Your task to perform on an android device: Search for logitech g903 on target.com, select the first entry, add it to the cart, then select checkout. Image 0: 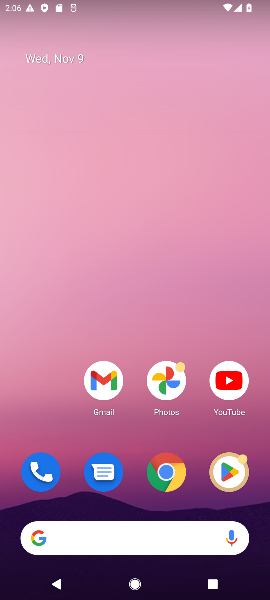
Step 0: click (129, 285)
Your task to perform on an android device: Search for logitech g903 on target.com, select the first entry, add it to the cart, then select checkout. Image 1: 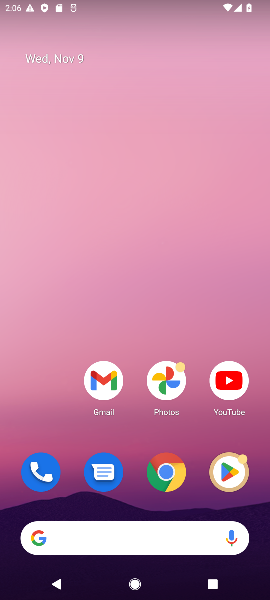
Step 1: click (110, 533)
Your task to perform on an android device: Search for logitech g903 on target.com, select the first entry, add it to the cart, then select checkout. Image 2: 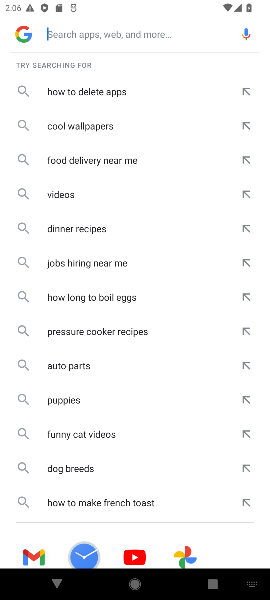
Step 2: type "target.com"
Your task to perform on an android device: Search for logitech g903 on target.com, select the first entry, add it to the cart, then select checkout. Image 3: 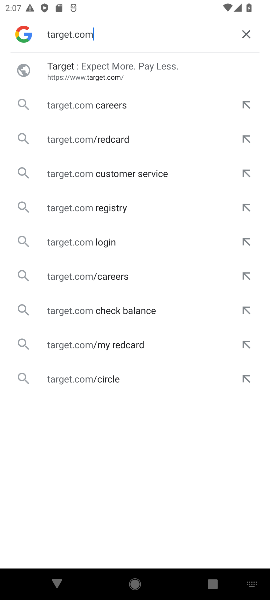
Step 3: click (55, 63)
Your task to perform on an android device: Search for logitech g903 on target.com, select the first entry, add it to the cart, then select checkout. Image 4: 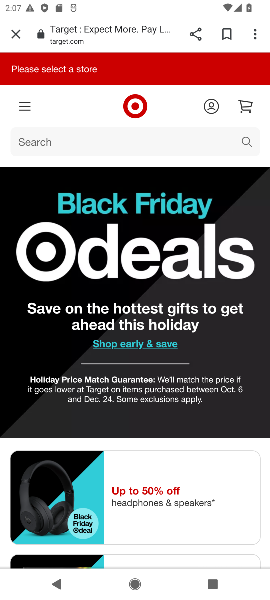
Step 4: drag from (173, 421) to (164, 237)
Your task to perform on an android device: Search for logitech g903 on target.com, select the first entry, add it to the cart, then select checkout. Image 5: 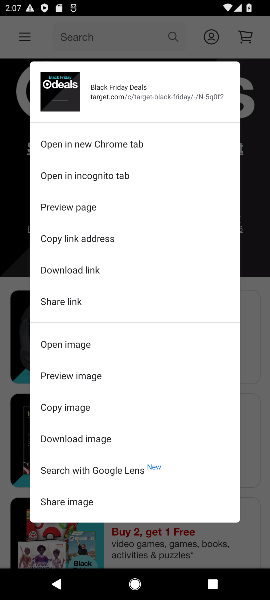
Step 5: click (255, 350)
Your task to perform on an android device: Search for logitech g903 on target.com, select the first entry, add it to the cart, then select checkout. Image 6: 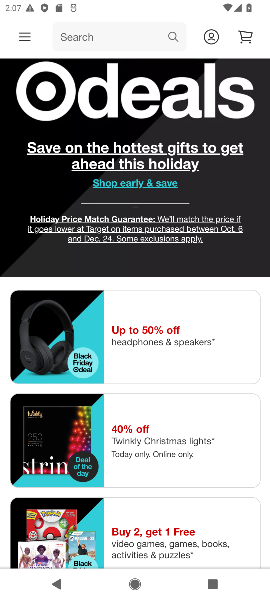
Step 6: click (150, 330)
Your task to perform on an android device: Search for logitech g903 on target.com, select the first entry, add it to the cart, then select checkout. Image 7: 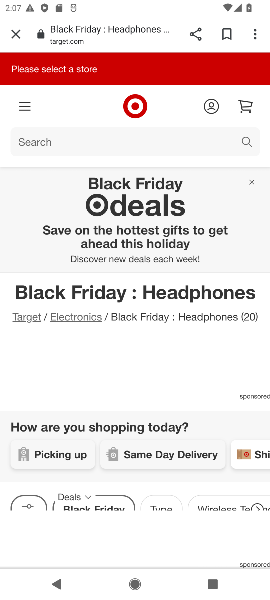
Step 7: drag from (157, 379) to (120, 184)
Your task to perform on an android device: Search for logitech g903 on target.com, select the first entry, add it to the cart, then select checkout. Image 8: 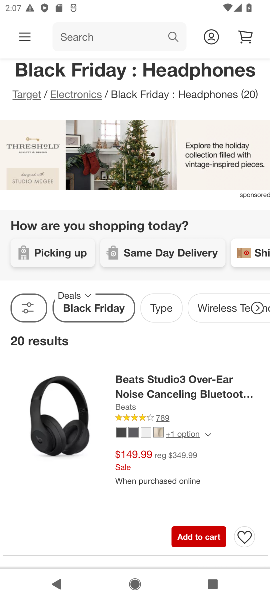
Step 8: click (189, 537)
Your task to perform on an android device: Search for logitech g903 on target.com, select the first entry, add it to the cart, then select checkout. Image 9: 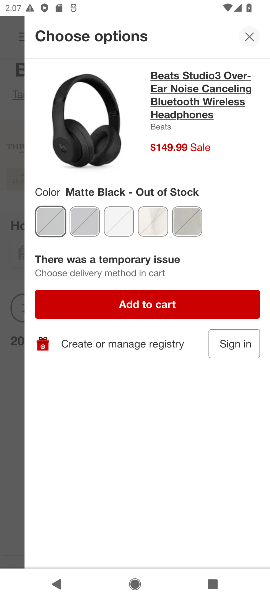
Step 9: click (138, 304)
Your task to perform on an android device: Search for logitech g903 on target.com, select the first entry, add it to the cart, then select checkout. Image 10: 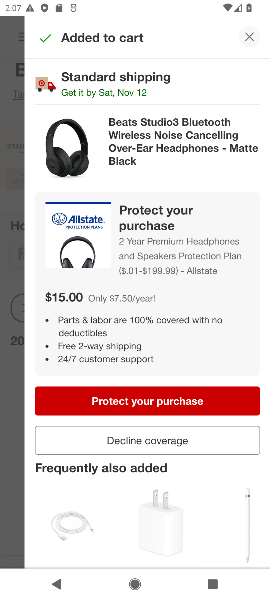
Step 10: click (157, 440)
Your task to perform on an android device: Search for logitech g903 on target.com, select the first entry, add it to the cart, then select checkout. Image 11: 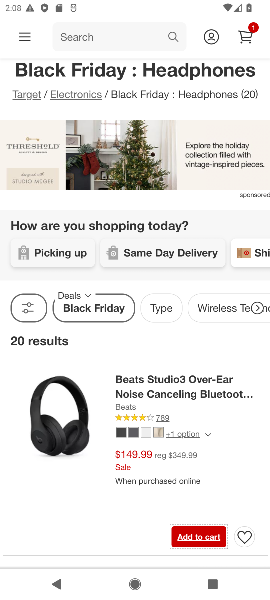
Step 11: click (245, 33)
Your task to perform on an android device: Search for logitech g903 on target.com, select the first entry, add it to the cart, then select checkout. Image 12: 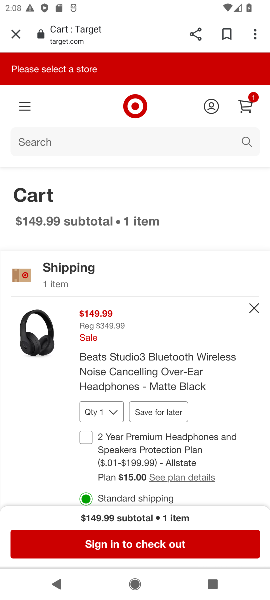
Step 12: click (141, 544)
Your task to perform on an android device: Search for logitech g903 on target.com, select the first entry, add it to the cart, then select checkout. Image 13: 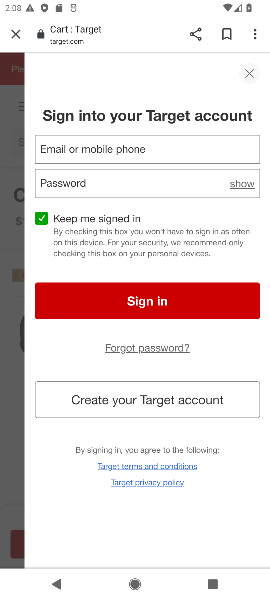
Step 13: task complete